Your task to perform on an android device: Open the map Image 0: 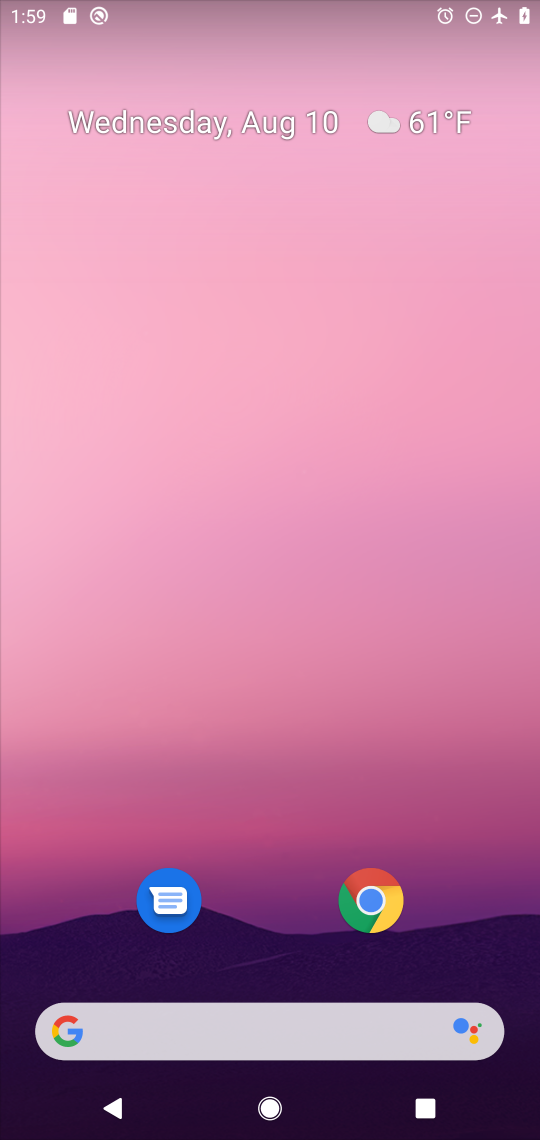
Step 0: drag from (279, 904) to (342, 6)
Your task to perform on an android device: Open the map Image 1: 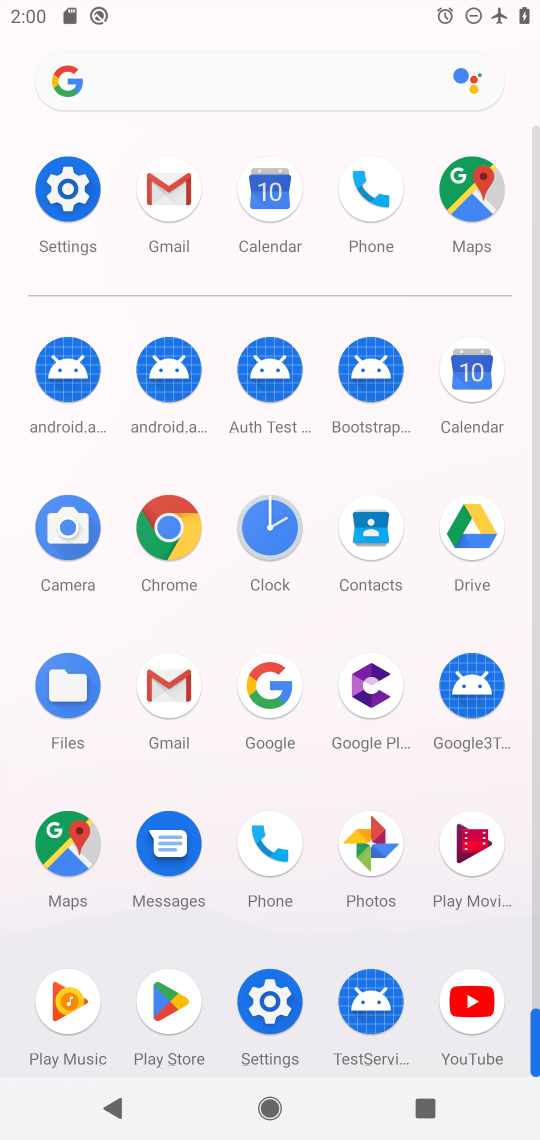
Step 1: click (62, 836)
Your task to perform on an android device: Open the map Image 2: 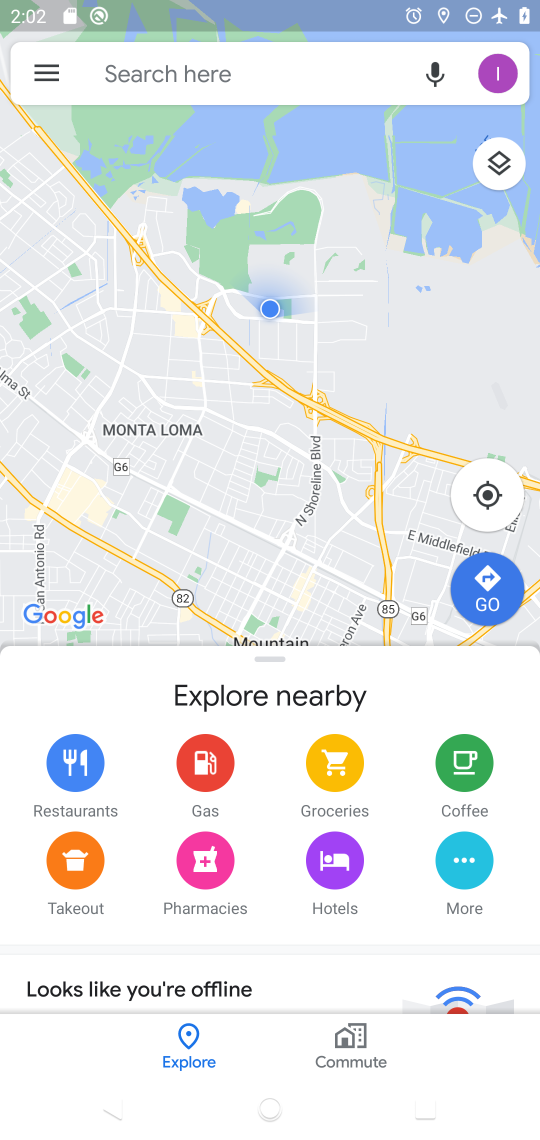
Step 2: task complete